Your task to perform on an android device: Go to network settings Image 0: 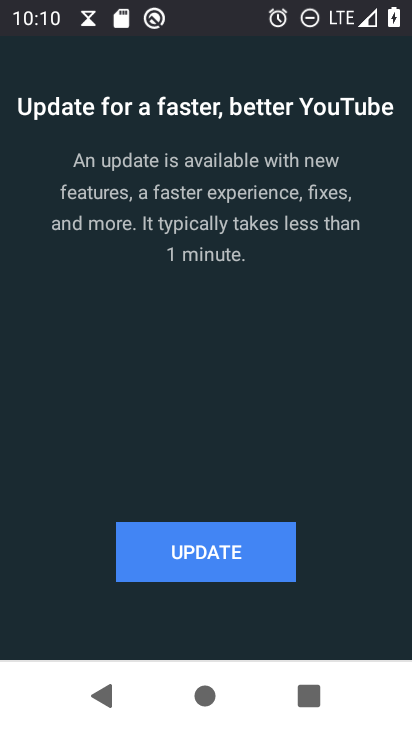
Step 0: press back button
Your task to perform on an android device: Go to network settings Image 1: 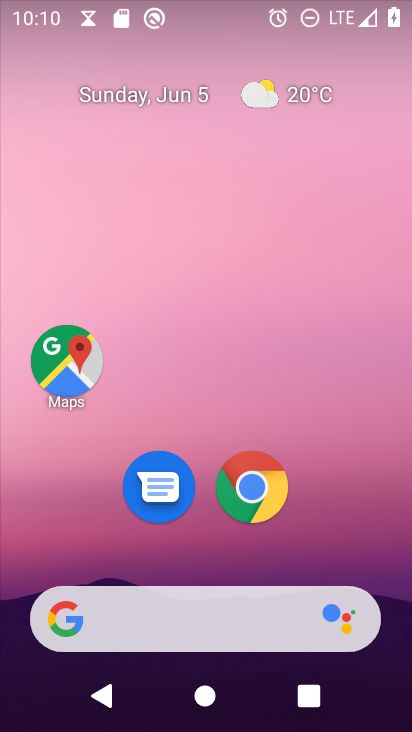
Step 1: drag from (308, 559) to (314, 215)
Your task to perform on an android device: Go to network settings Image 2: 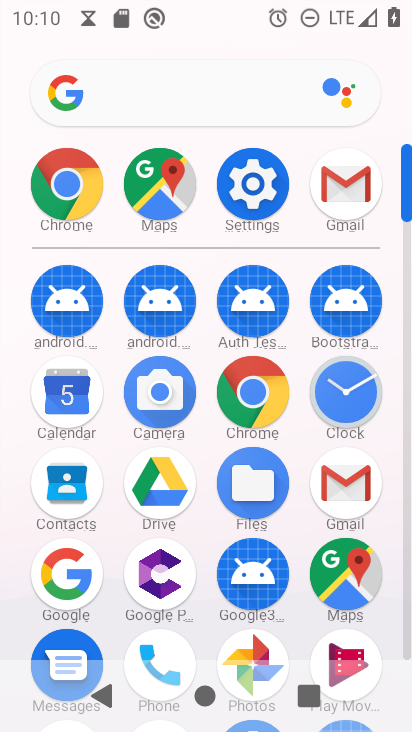
Step 2: click (249, 165)
Your task to perform on an android device: Go to network settings Image 3: 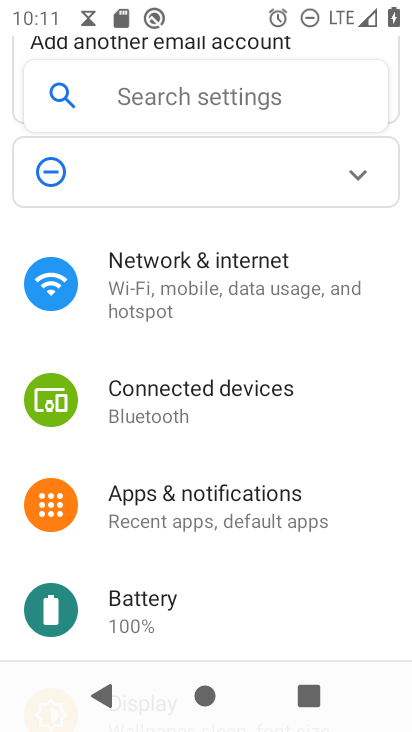
Step 3: click (147, 262)
Your task to perform on an android device: Go to network settings Image 4: 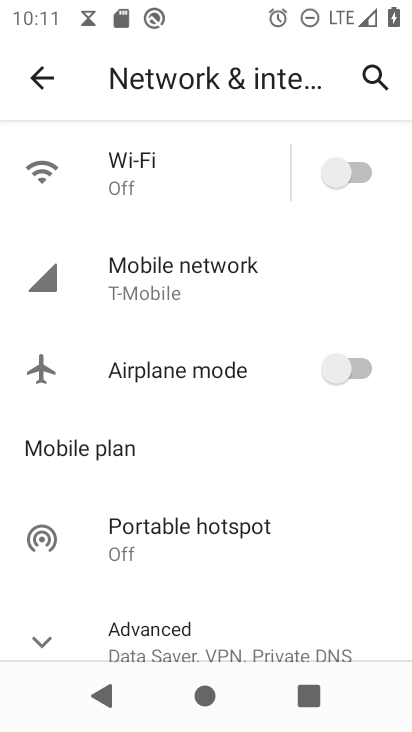
Step 4: task complete